Your task to perform on an android device: Open Yahoo.com Image 0: 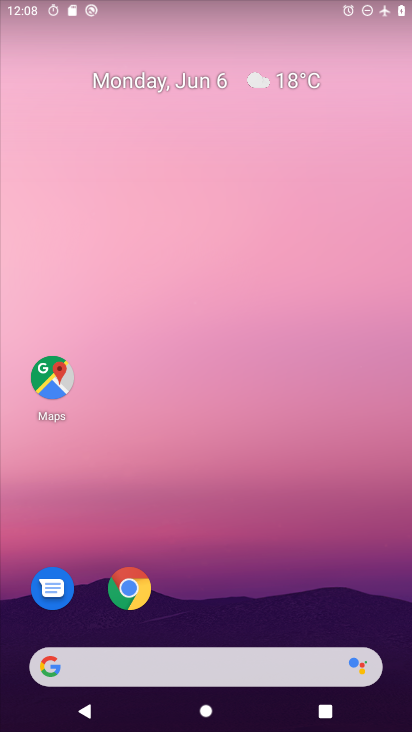
Step 0: drag from (328, 612) to (316, 141)
Your task to perform on an android device: Open Yahoo.com Image 1: 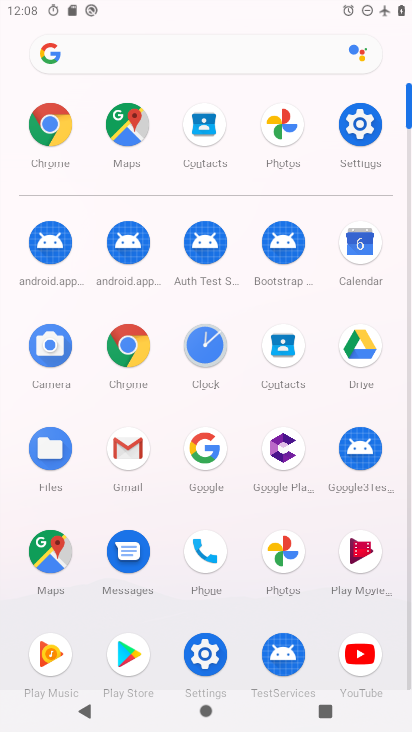
Step 1: click (135, 351)
Your task to perform on an android device: Open Yahoo.com Image 2: 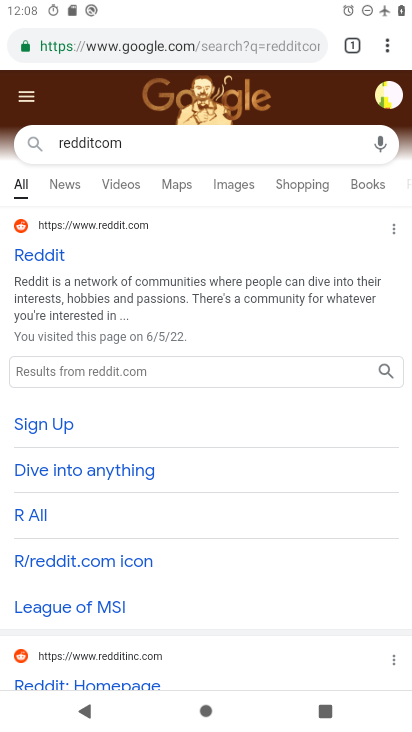
Step 2: press back button
Your task to perform on an android device: Open Yahoo.com Image 3: 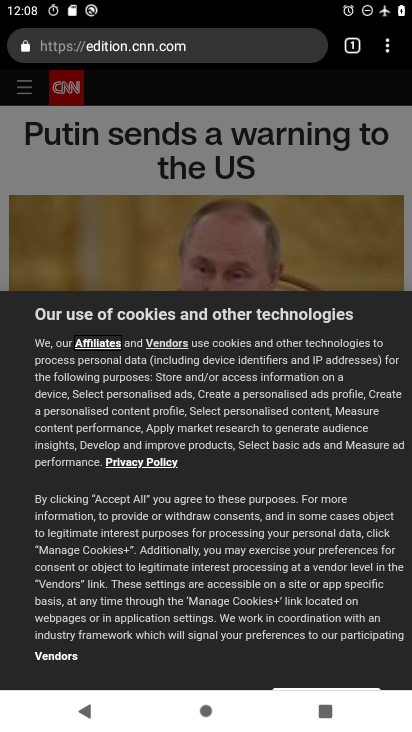
Step 3: press back button
Your task to perform on an android device: Open Yahoo.com Image 4: 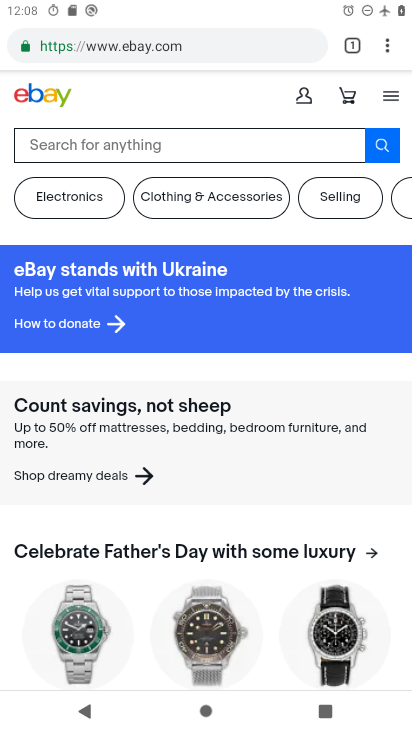
Step 4: press back button
Your task to perform on an android device: Open Yahoo.com Image 5: 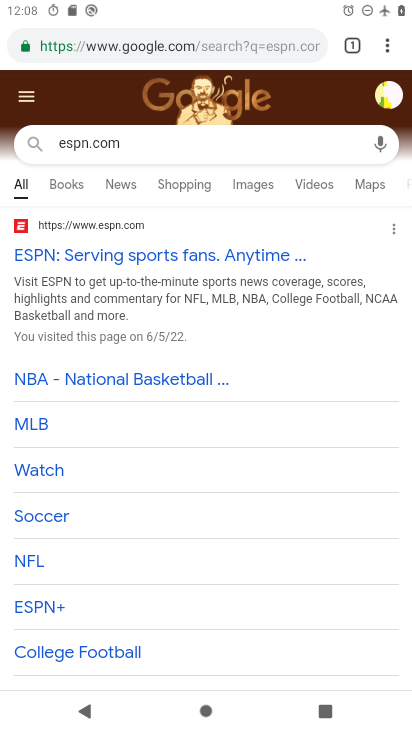
Step 5: press back button
Your task to perform on an android device: Open Yahoo.com Image 6: 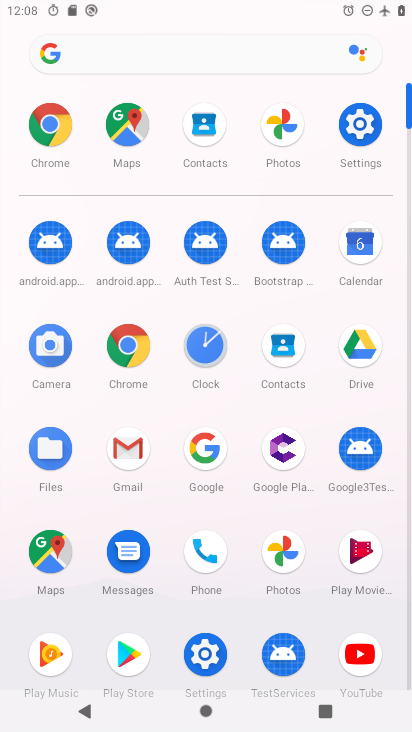
Step 6: click (145, 355)
Your task to perform on an android device: Open Yahoo.com Image 7: 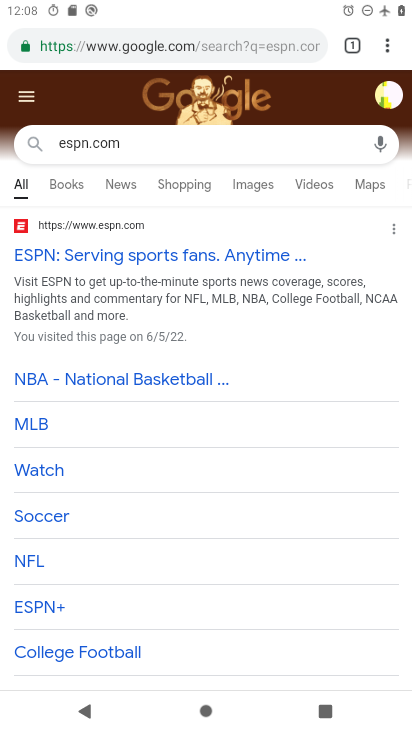
Step 7: click (161, 45)
Your task to perform on an android device: Open Yahoo.com Image 8: 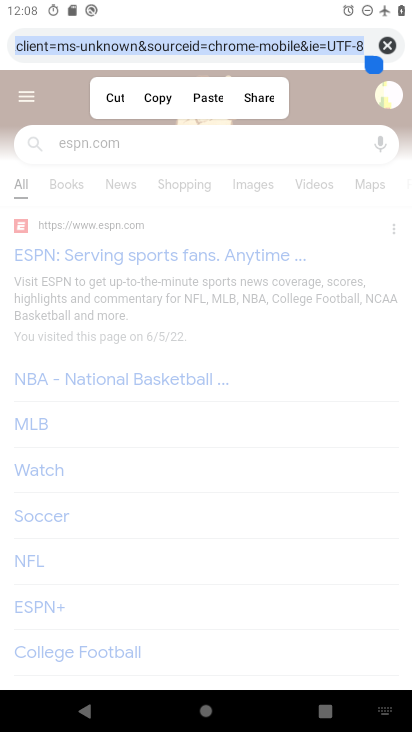
Step 8: click (376, 42)
Your task to perform on an android device: Open Yahoo.com Image 9: 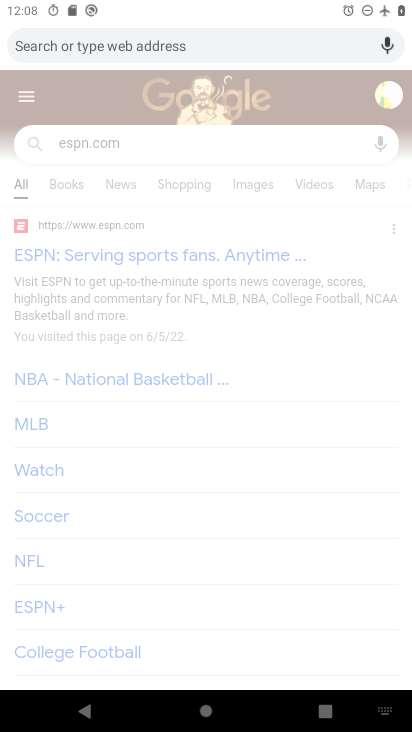
Step 9: type "yahoo.com"
Your task to perform on an android device: Open Yahoo.com Image 10: 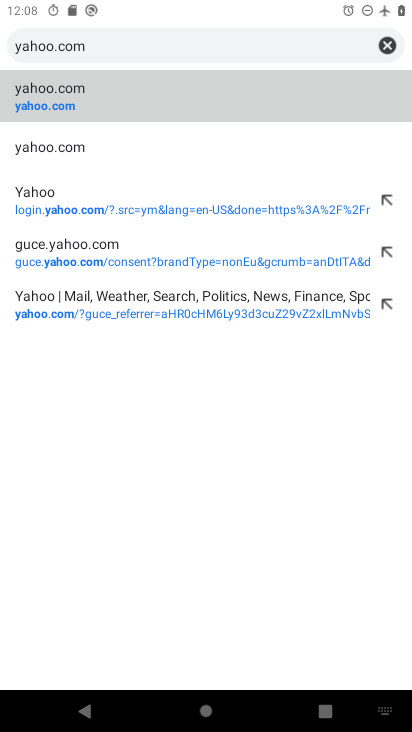
Step 10: click (163, 87)
Your task to perform on an android device: Open Yahoo.com Image 11: 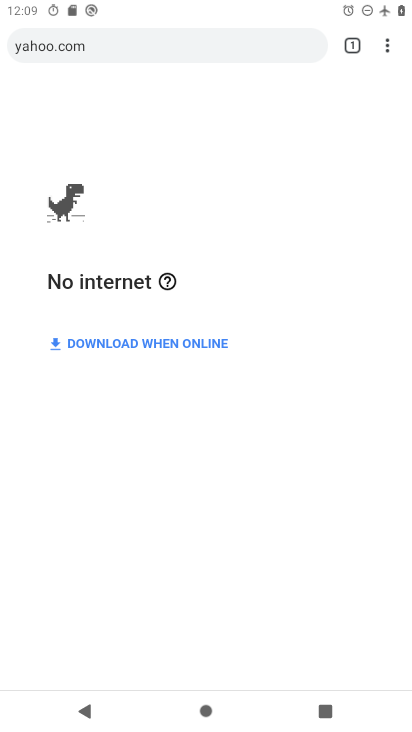
Step 11: task complete